Your task to perform on an android device: Open calendar and show me the second week of next month Image 0: 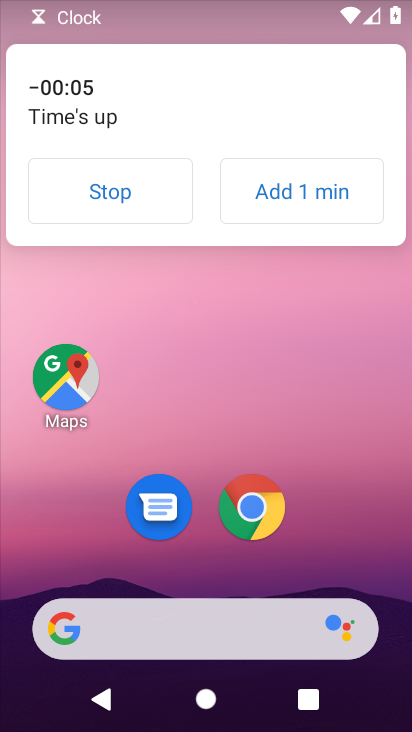
Step 0: click (135, 179)
Your task to perform on an android device: Open calendar and show me the second week of next month Image 1: 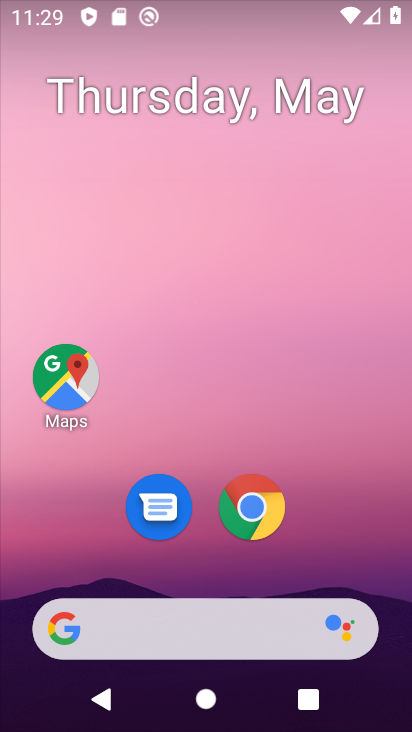
Step 1: drag from (279, 633) to (328, 71)
Your task to perform on an android device: Open calendar and show me the second week of next month Image 2: 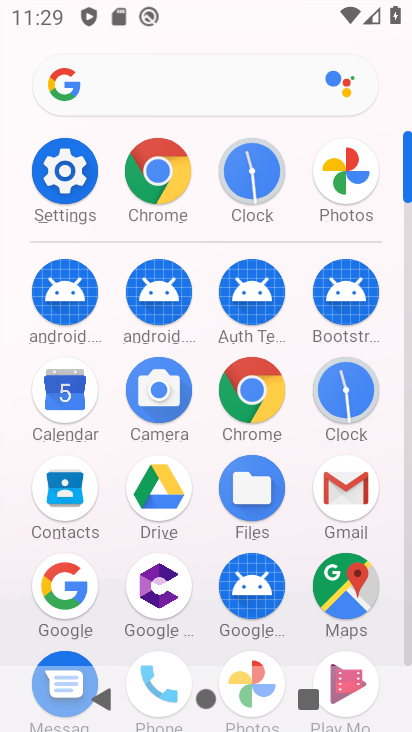
Step 2: click (73, 402)
Your task to perform on an android device: Open calendar and show me the second week of next month Image 3: 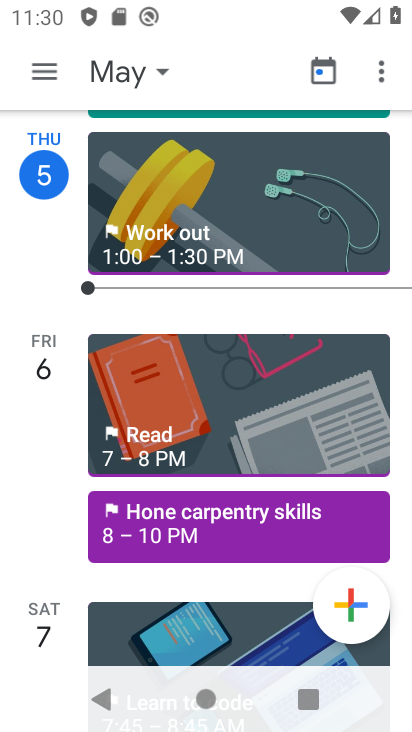
Step 3: click (146, 77)
Your task to perform on an android device: Open calendar and show me the second week of next month Image 4: 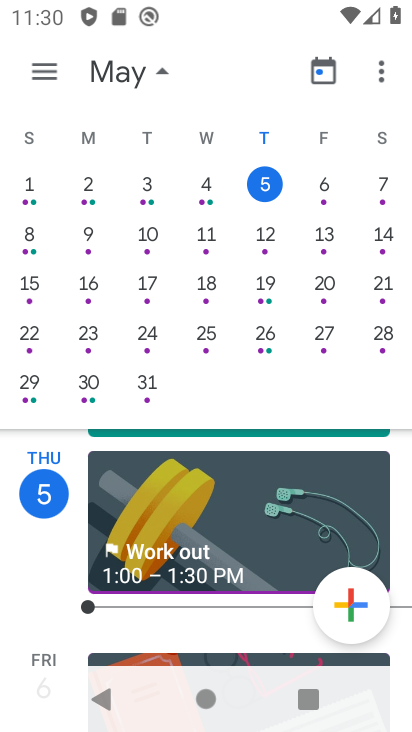
Step 4: drag from (170, 431) to (169, 370)
Your task to perform on an android device: Open calendar and show me the second week of next month Image 5: 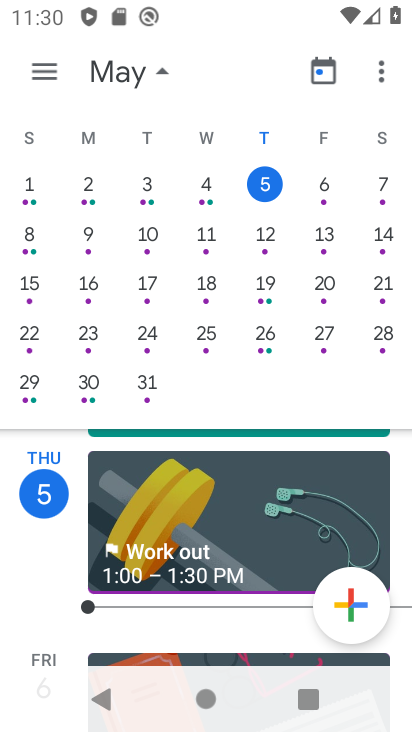
Step 5: drag from (351, 307) to (30, 223)
Your task to perform on an android device: Open calendar and show me the second week of next month Image 6: 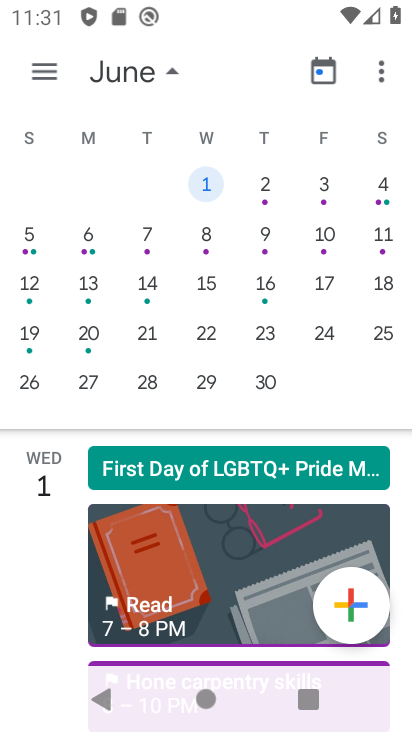
Step 6: click (34, 253)
Your task to perform on an android device: Open calendar and show me the second week of next month Image 7: 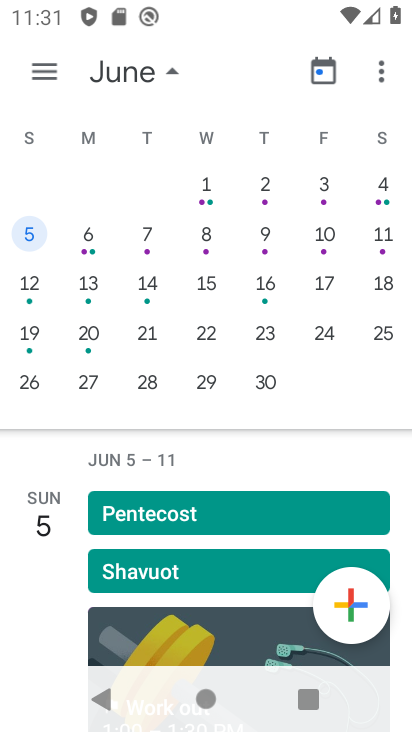
Step 7: task complete